Your task to perform on an android device: Search for dining sets on article.com Image 0: 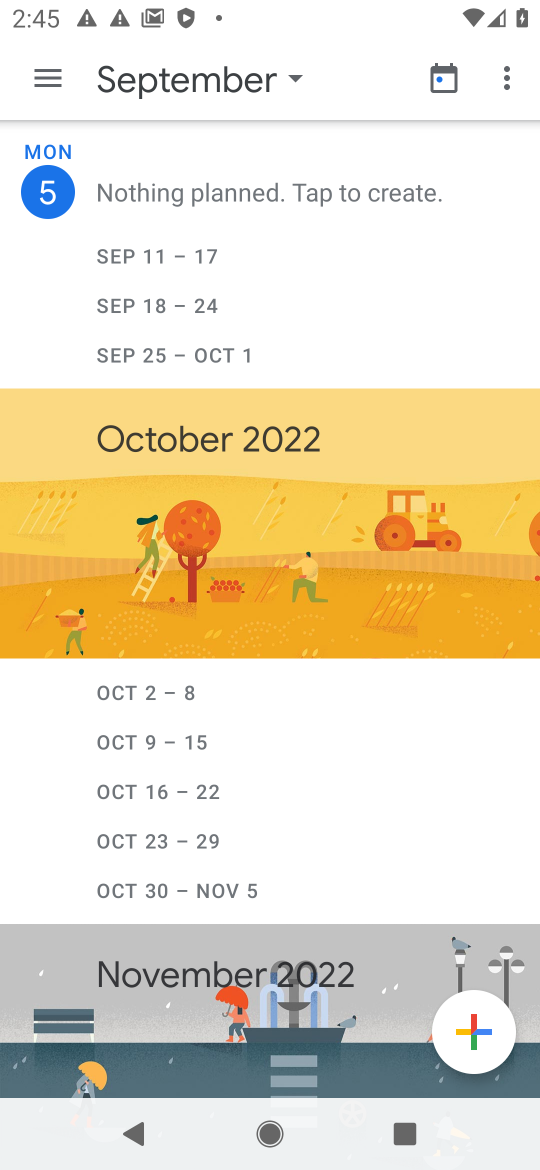
Step 0: press home button
Your task to perform on an android device: Search for dining sets on article.com Image 1: 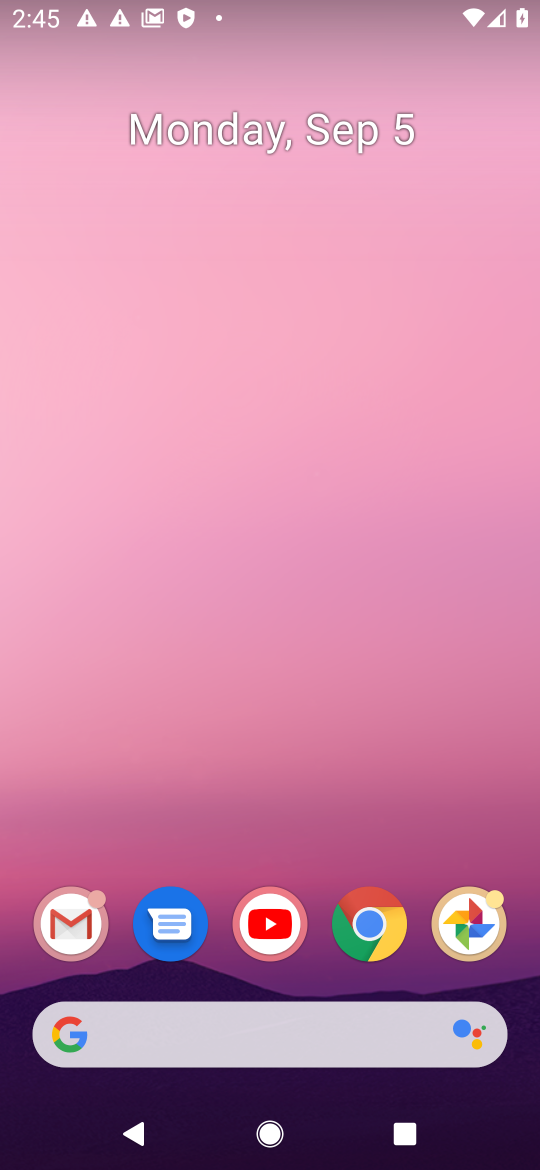
Step 1: drag from (279, 796) to (344, 0)
Your task to perform on an android device: Search for dining sets on article.com Image 2: 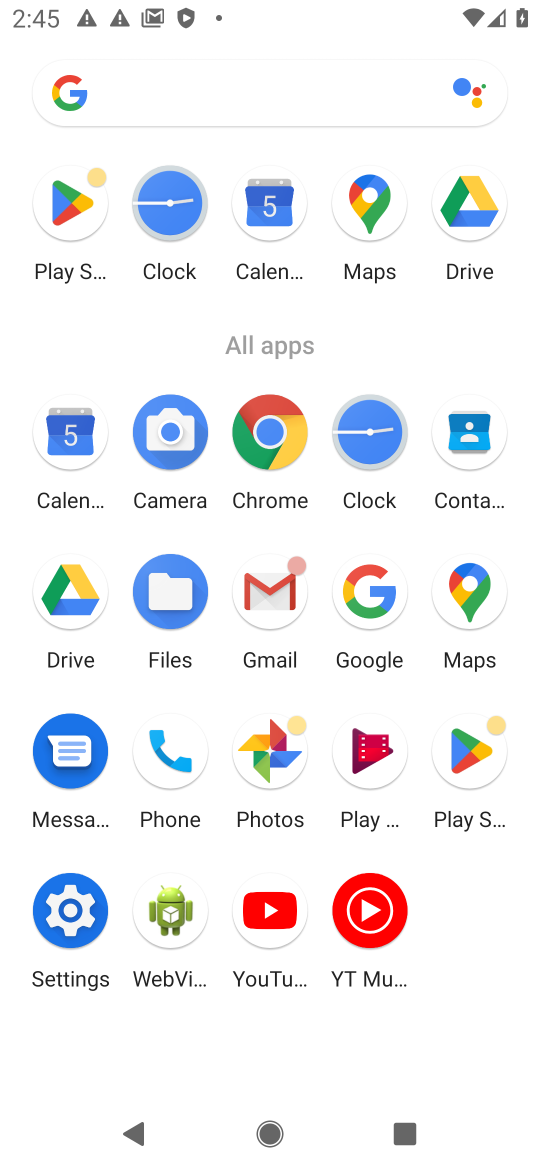
Step 2: click (341, 614)
Your task to perform on an android device: Search for dining sets on article.com Image 3: 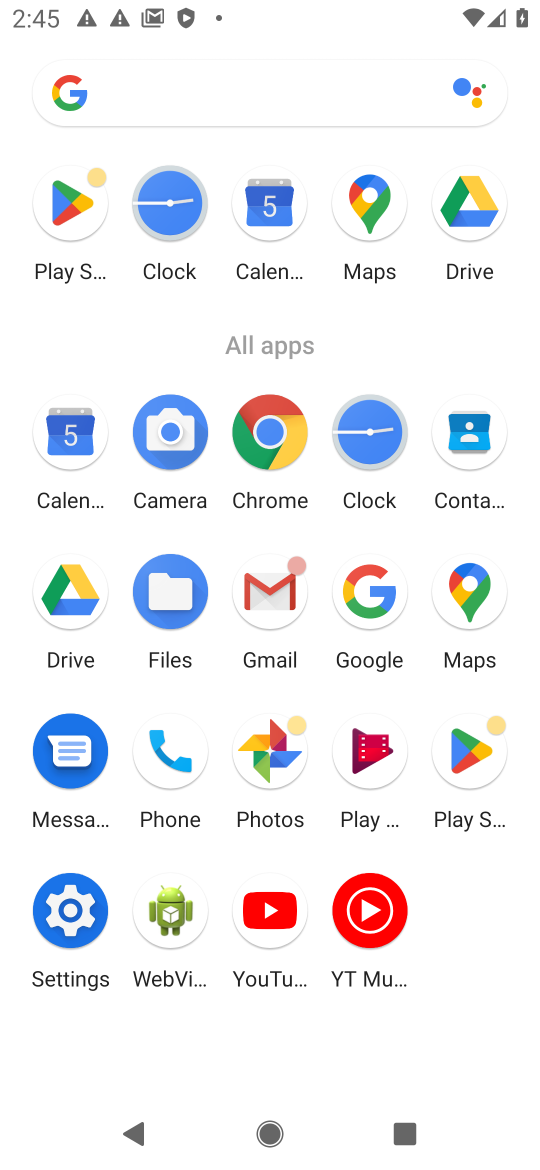
Step 3: click (380, 605)
Your task to perform on an android device: Search for dining sets on article.com Image 4: 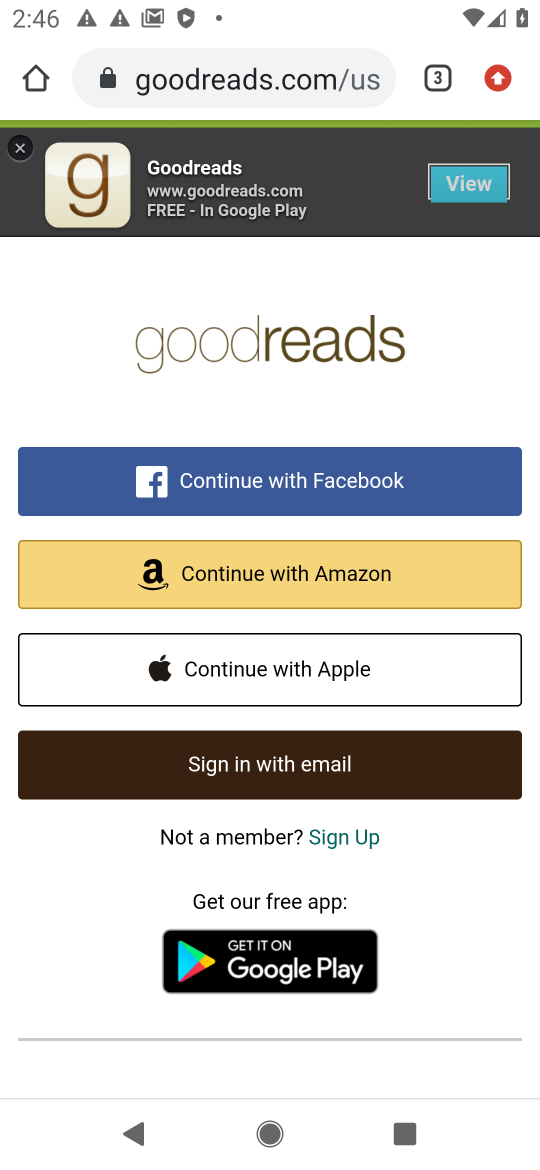
Step 4: click (249, 88)
Your task to perform on an android device: Search for dining sets on article.com Image 5: 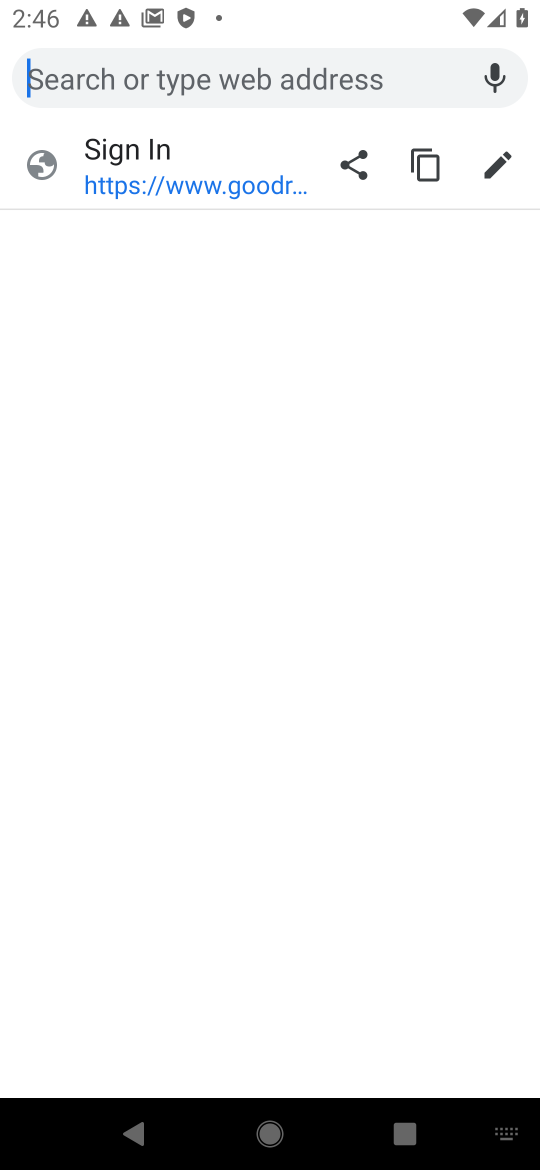
Step 5: type "article.com"
Your task to perform on an android device: Search for dining sets on article.com Image 6: 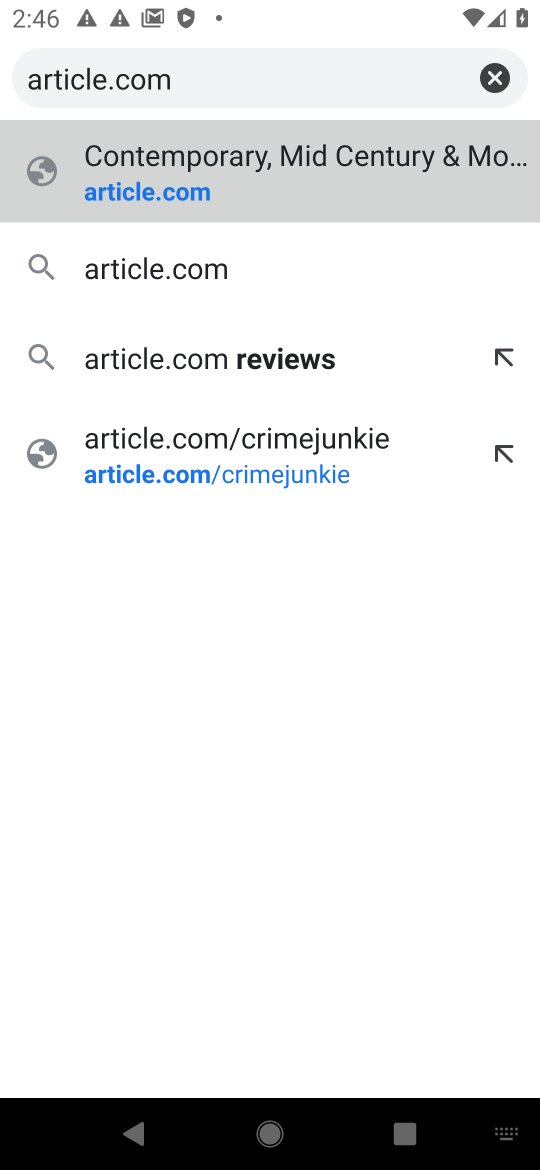
Step 6: type ""
Your task to perform on an android device: Search for dining sets on article.com Image 7: 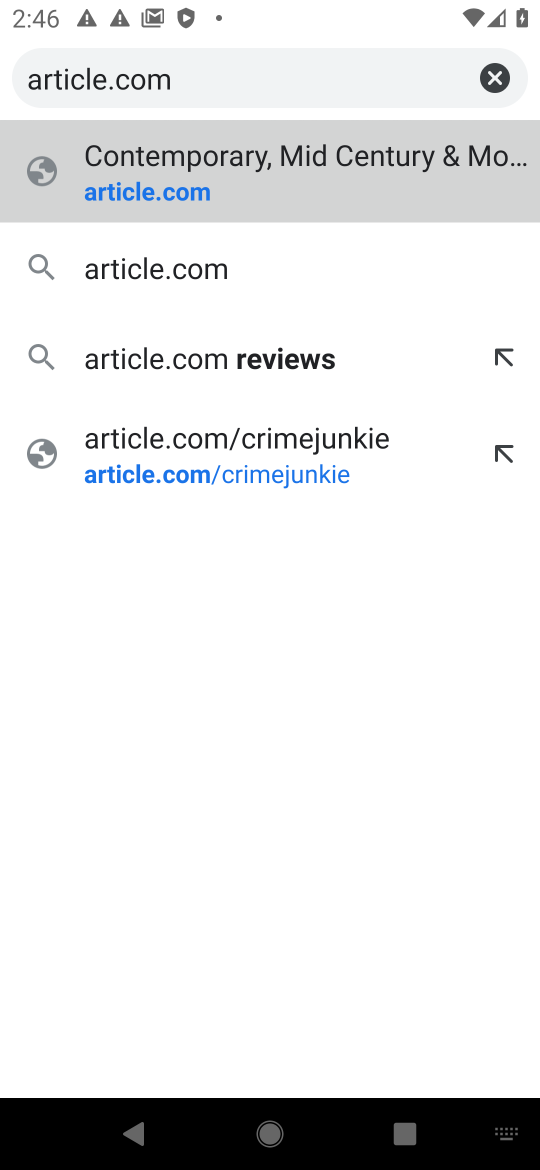
Step 7: click (130, 197)
Your task to perform on an android device: Search for dining sets on article.com Image 8: 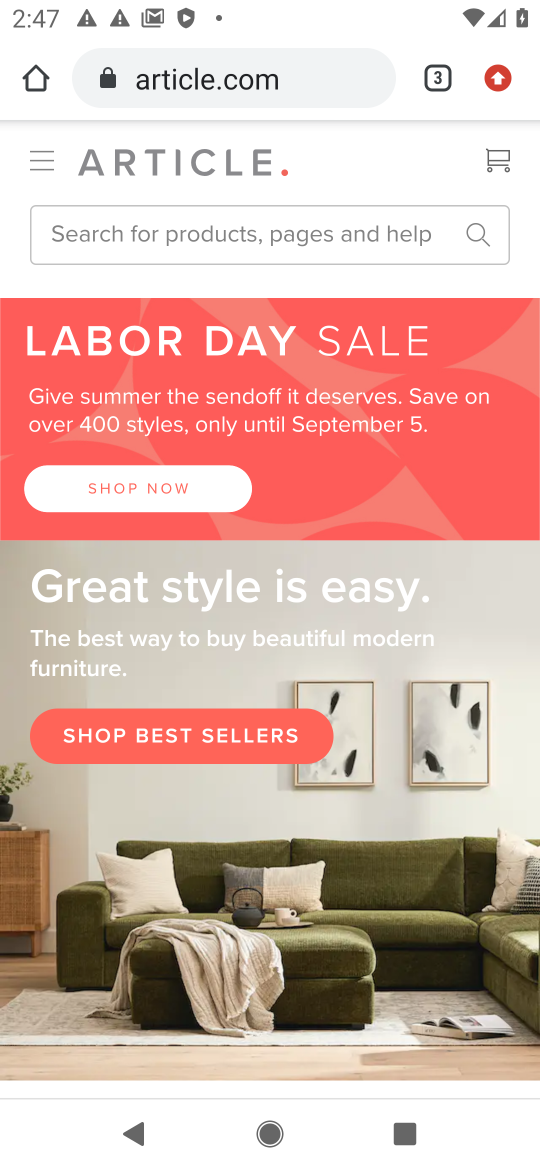
Step 8: click (143, 242)
Your task to perform on an android device: Search for dining sets on article.com Image 9: 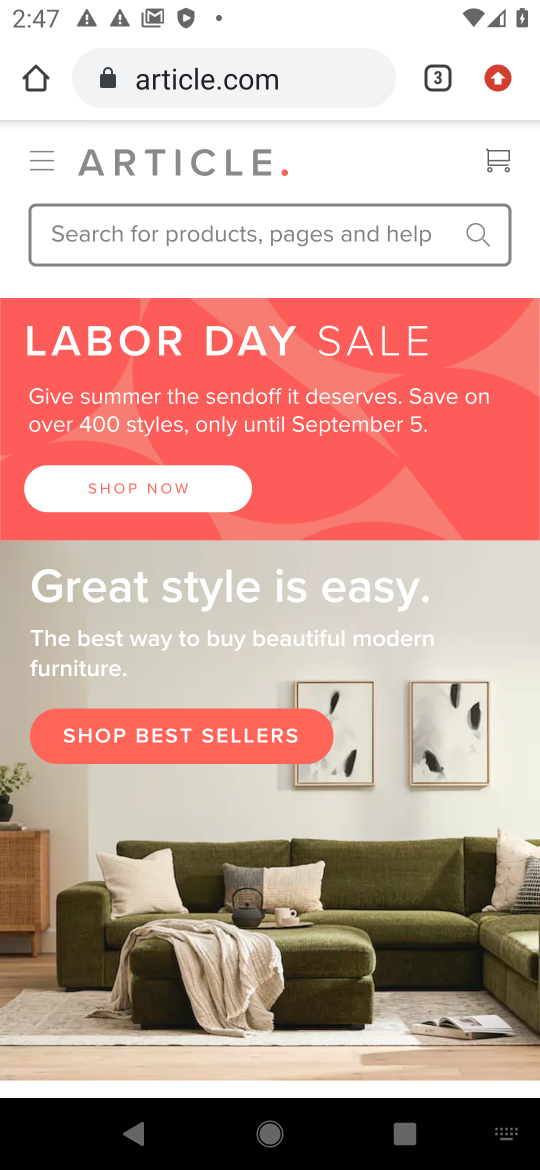
Step 9: type "dining set"
Your task to perform on an android device: Search for dining sets on article.com Image 10: 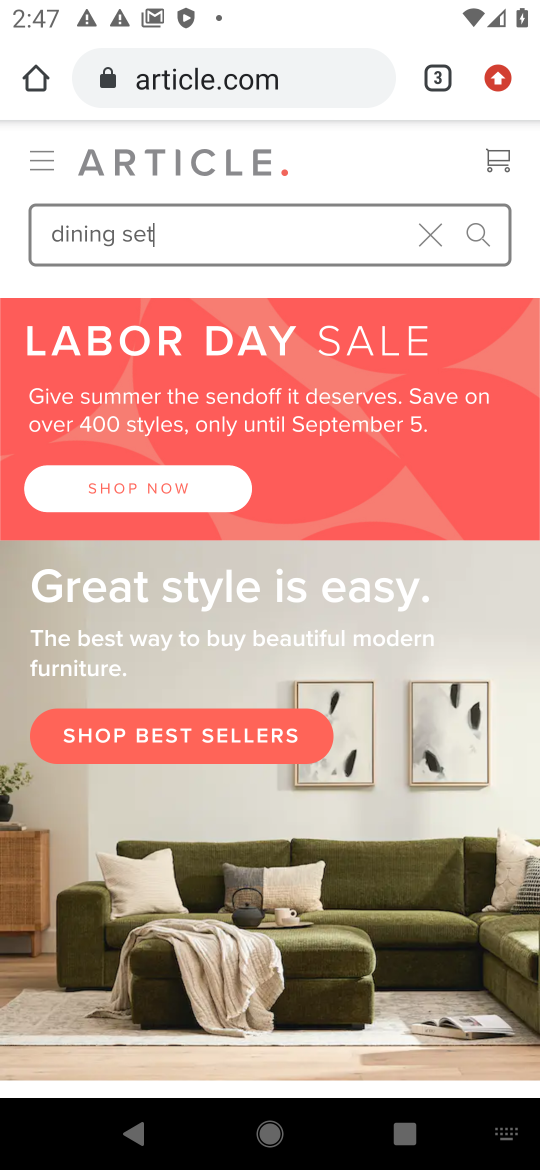
Step 10: type ""
Your task to perform on an android device: Search for dining sets on article.com Image 11: 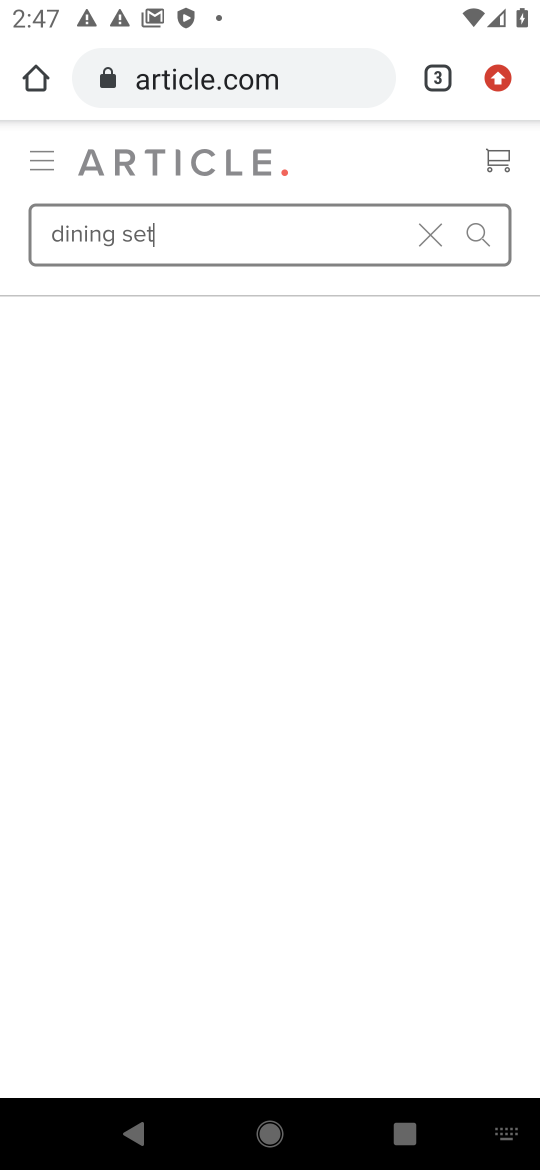
Step 11: click (135, 249)
Your task to perform on an android device: Search for dining sets on article.com Image 12: 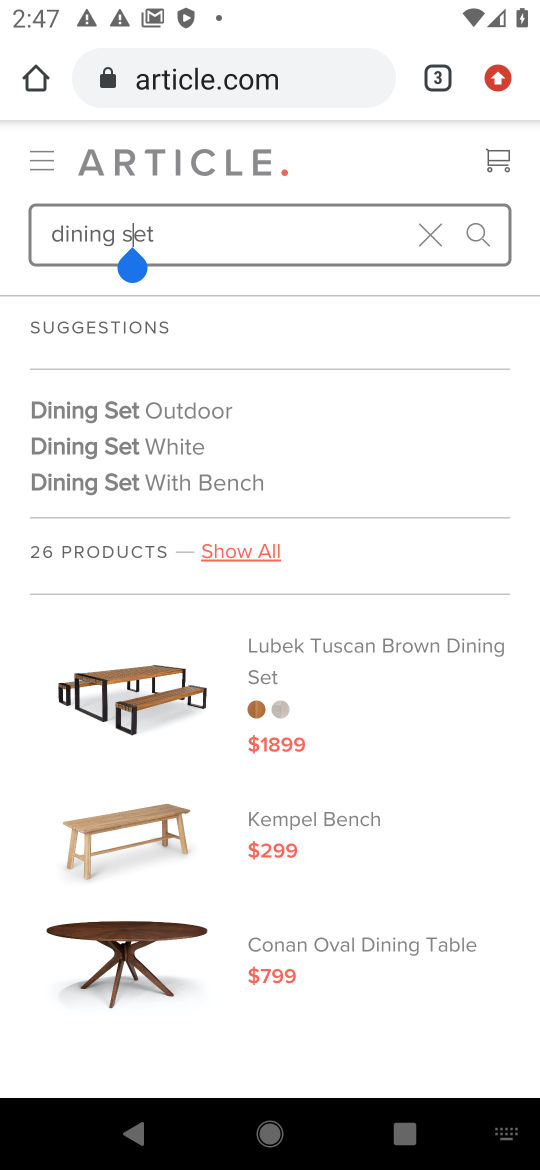
Step 12: click (473, 240)
Your task to perform on an android device: Search for dining sets on article.com Image 13: 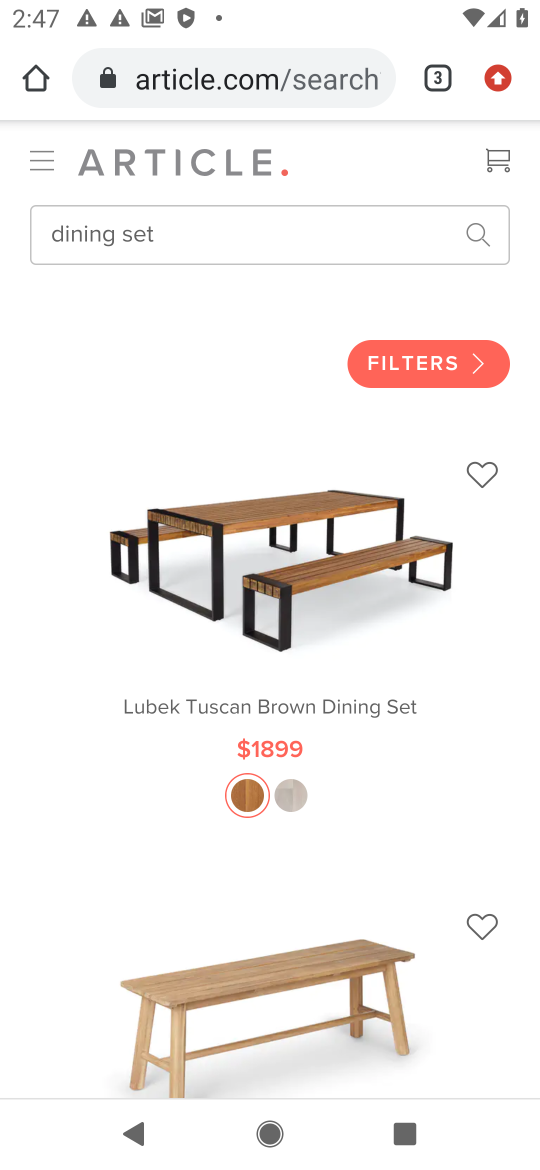
Step 13: task complete